Your task to perform on an android device: check storage Image 0: 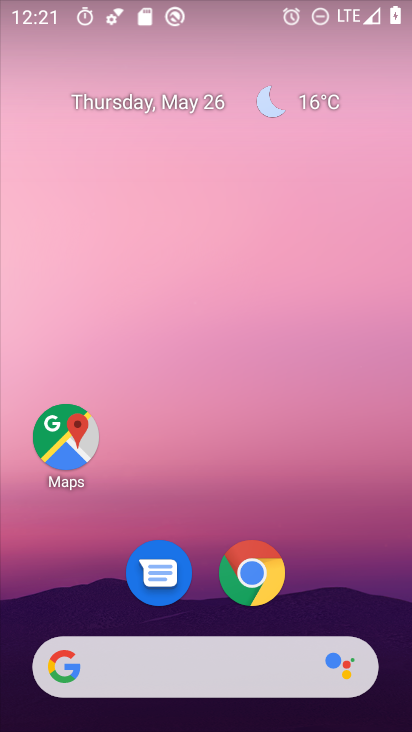
Step 0: drag from (367, 199) to (388, 21)
Your task to perform on an android device: check storage Image 1: 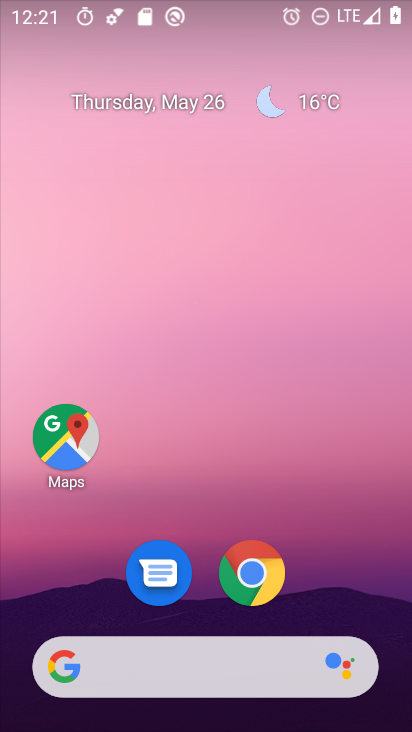
Step 1: drag from (302, 595) to (298, 712)
Your task to perform on an android device: check storage Image 2: 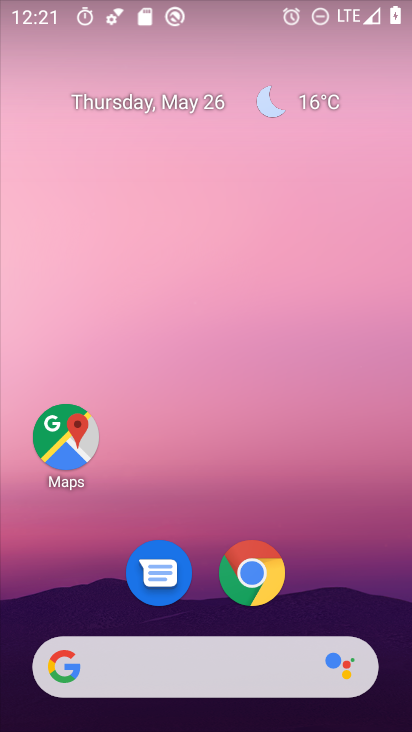
Step 2: drag from (326, 591) to (245, 1)
Your task to perform on an android device: check storage Image 3: 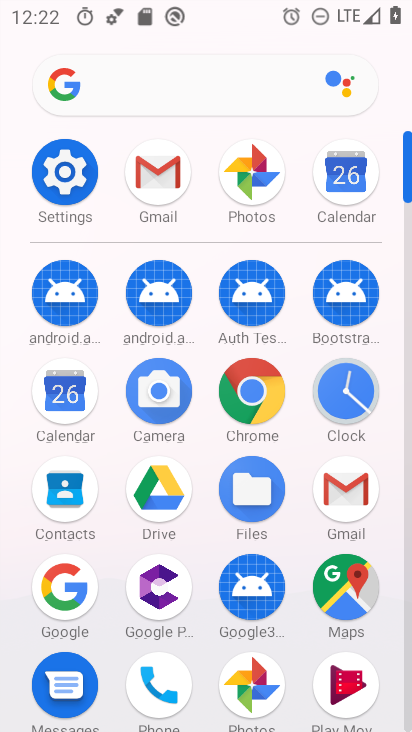
Step 3: click (60, 179)
Your task to perform on an android device: check storage Image 4: 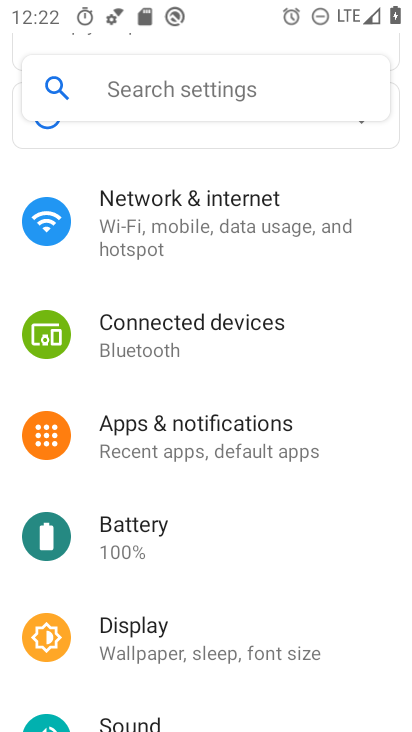
Step 4: drag from (283, 593) to (274, 357)
Your task to perform on an android device: check storage Image 5: 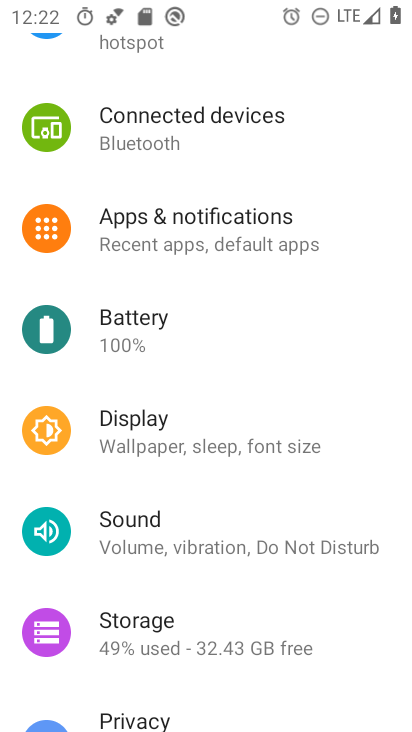
Step 5: click (125, 632)
Your task to perform on an android device: check storage Image 6: 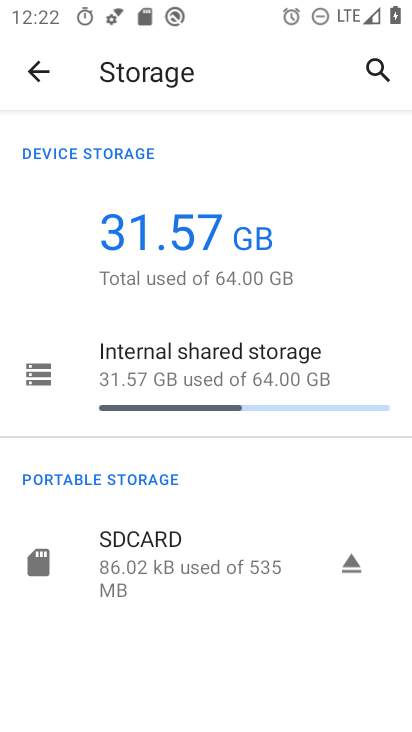
Step 6: click (244, 384)
Your task to perform on an android device: check storage Image 7: 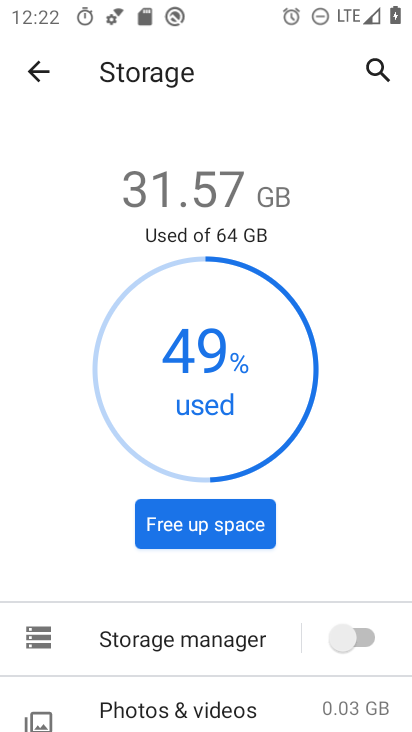
Step 7: task complete